Your task to perform on an android device: delete the emails in spam in the gmail app Image 0: 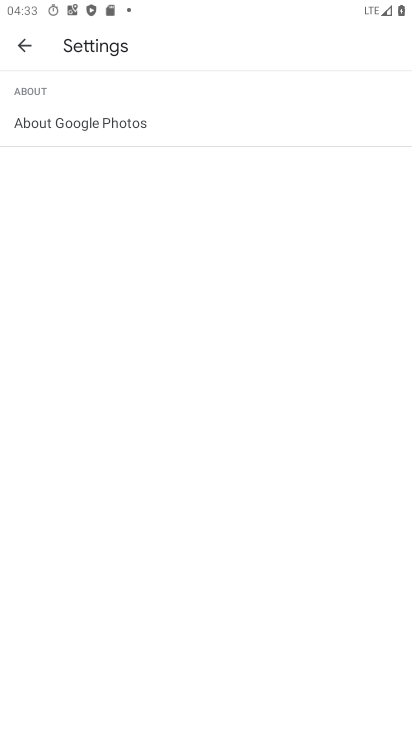
Step 0: press home button
Your task to perform on an android device: delete the emails in spam in the gmail app Image 1: 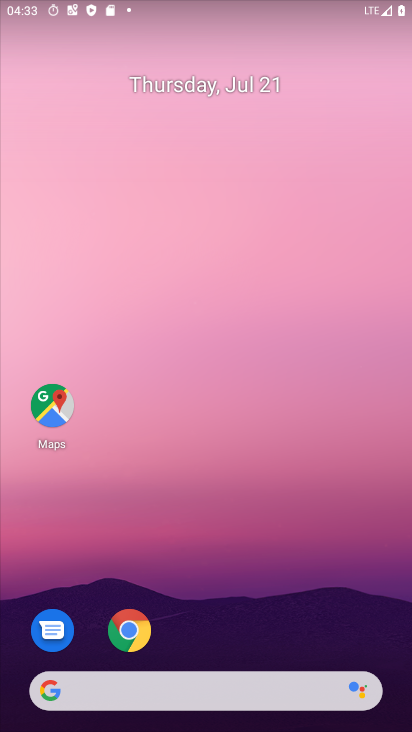
Step 1: drag from (202, 668) to (216, 210)
Your task to perform on an android device: delete the emails in spam in the gmail app Image 2: 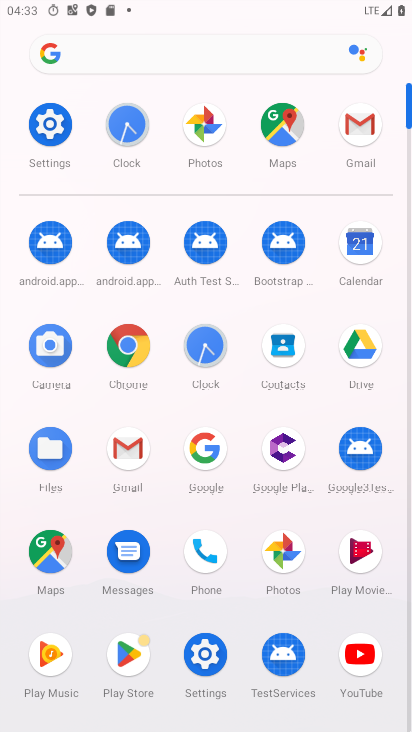
Step 2: click (383, 117)
Your task to perform on an android device: delete the emails in spam in the gmail app Image 3: 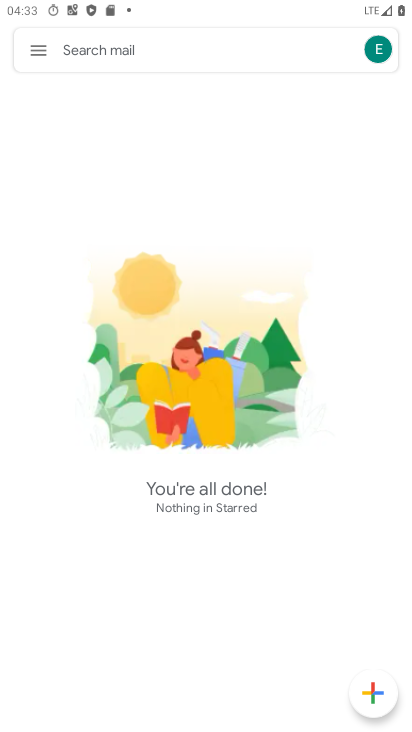
Step 3: click (42, 41)
Your task to perform on an android device: delete the emails in spam in the gmail app Image 4: 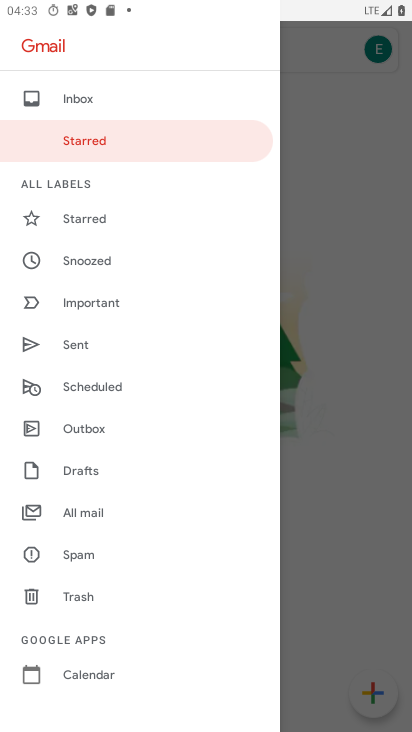
Step 4: click (93, 549)
Your task to perform on an android device: delete the emails in spam in the gmail app Image 5: 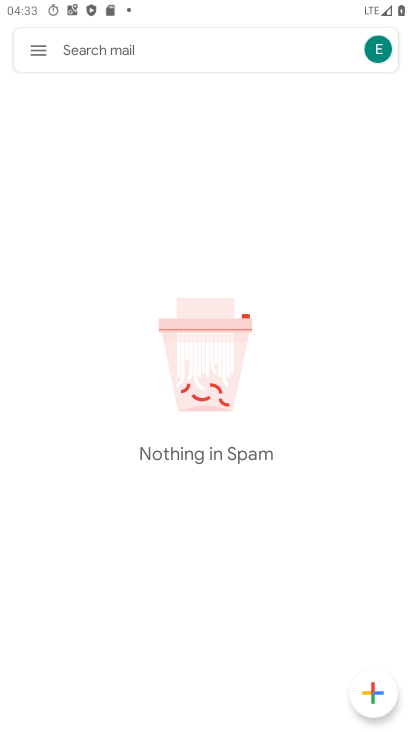
Step 5: task complete